Your task to perform on an android device: turn on the 12-hour format for clock Image 0: 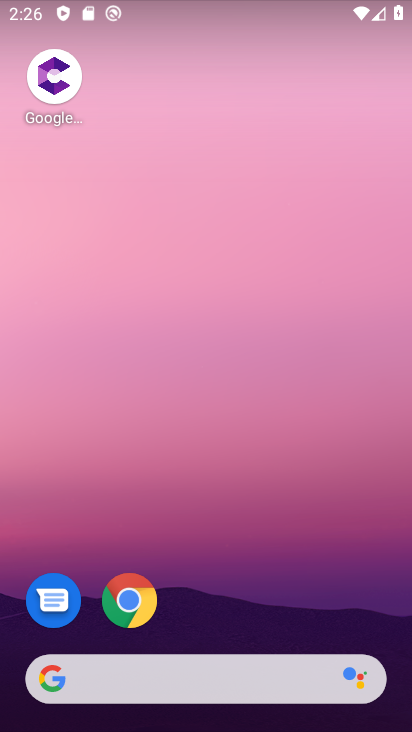
Step 0: drag from (369, 620) to (368, 236)
Your task to perform on an android device: turn on the 12-hour format for clock Image 1: 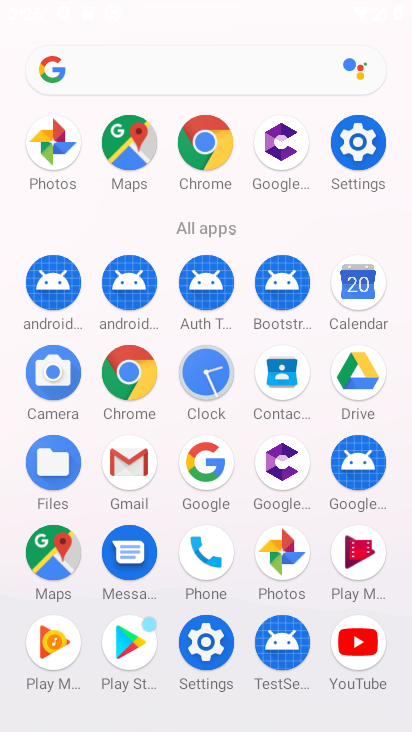
Step 1: click (209, 378)
Your task to perform on an android device: turn on the 12-hour format for clock Image 2: 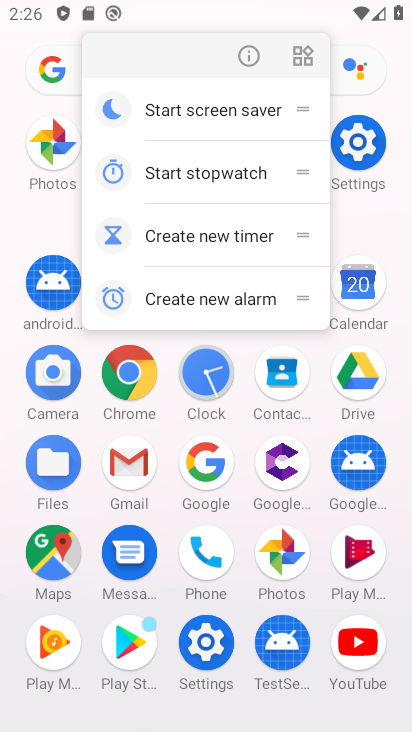
Step 2: click (209, 378)
Your task to perform on an android device: turn on the 12-hour format for clock Image 3: 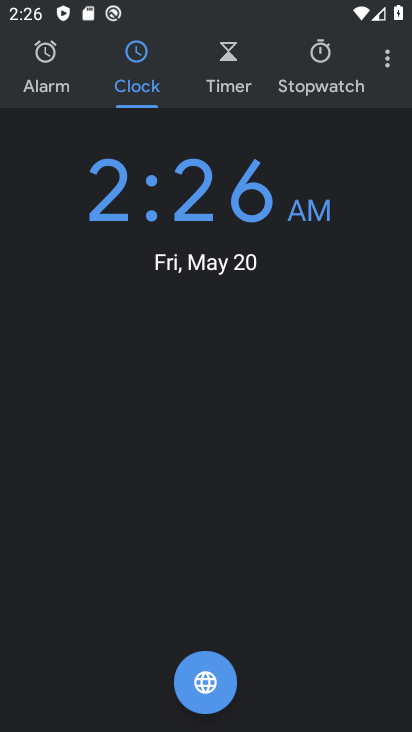
Step 3: click (388, 62)
Your task to perform on an android device: turn on the 12-hour format for clock Image 4: 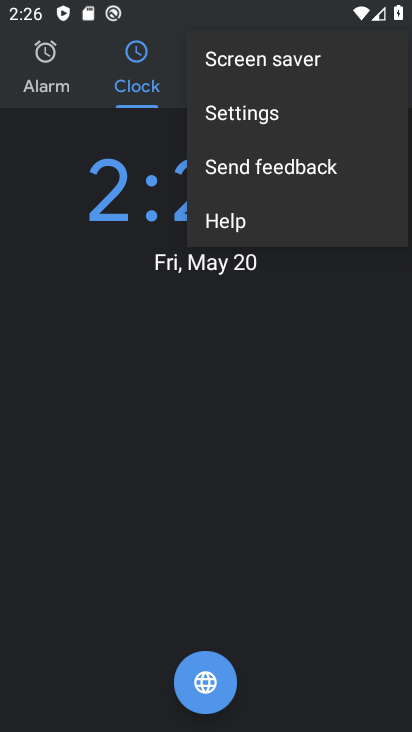
Step 4: click (305, 126)
Your task to perform on an android device: turn on the 12-hour format for clock Image 5: 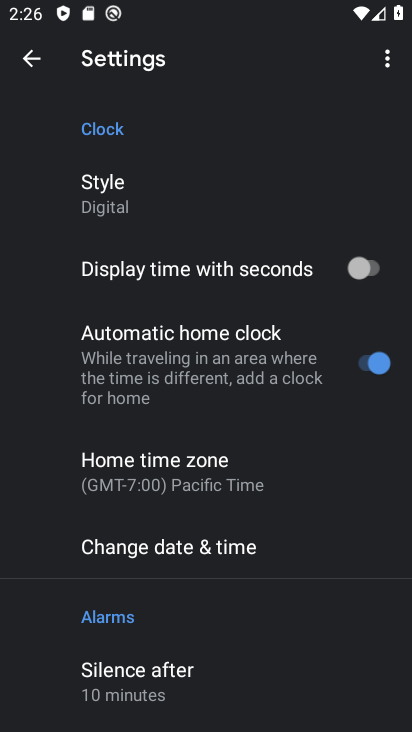
Step 5: drag from (311, 494) to (316, 408)
Your task to perform on an android device: turn on the 12-hour format for clock Image 6: 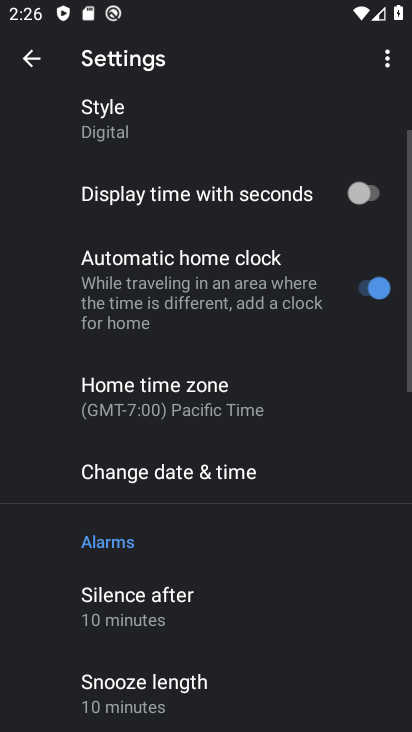
Step 6: drag from (328, 522) to (328, 464)
Your task to perform on an android device: turn on the 12-hour format for clock Image 7: 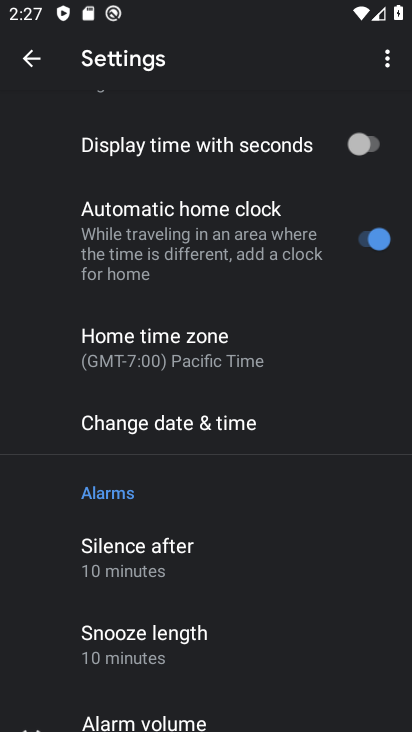
Step 7: drag from (325, 624) to (325, 502)
Your task to perform on an android device: turn on the 12-hour format for clock Image 8: 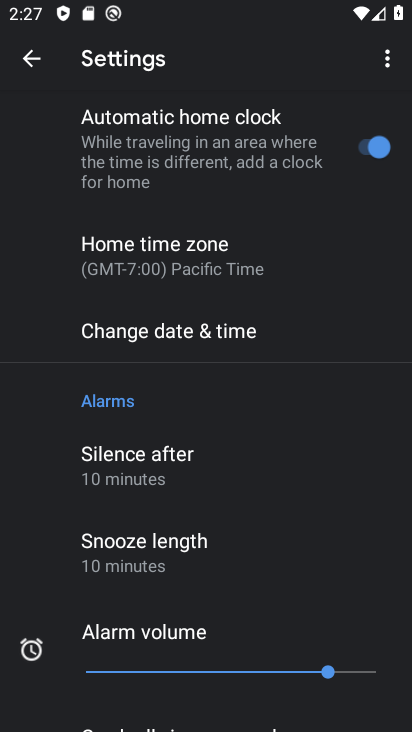
Step 8: click (246, 346)
Your task to perform on an android device: turn on the 12-hour format for clock Image 9: 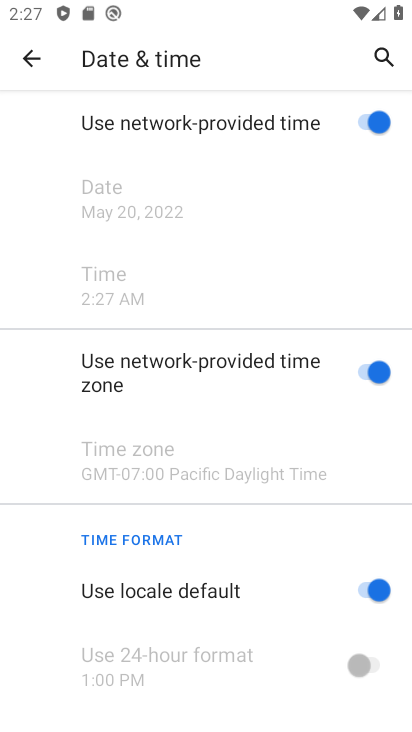
Step 9: drag from (266, 604) to (279, 521)
Your task to perform on an android device: turn on the 12-hour format for clock Image 10: 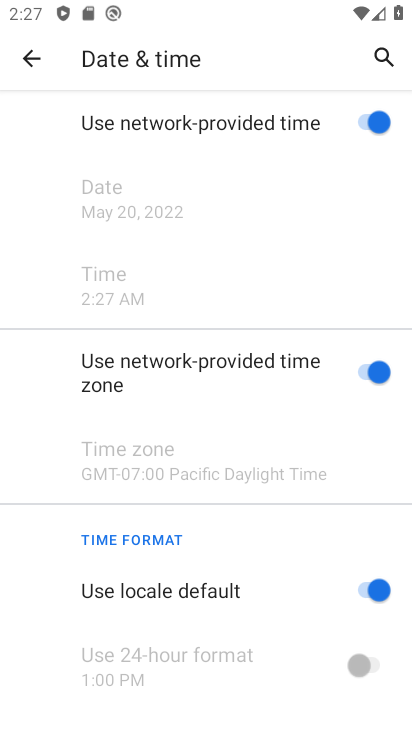
Step 10: drag from (284, 594) to (291, 471)
Your task to perform on an android device: turn on the 12-hour format for clock Image 11: 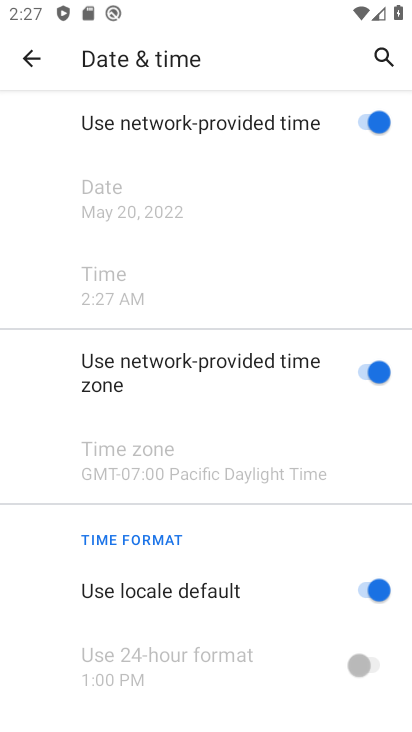
Step 11: click (363, 587)
Your task to perform on an android device: turn on the 12-hour format for clock Image 12: 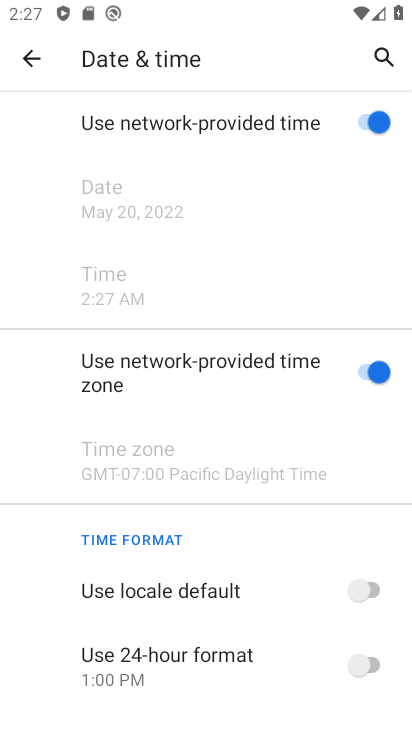
Step 12: task complete